Your task to perform on an android device: Go to Google maps Image 0: 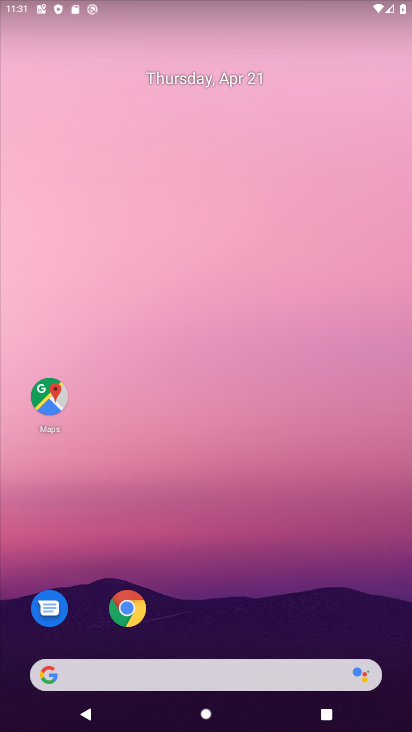
Step 0: drag from (133, 332) to (38, 2)
Your task to perform on an android device: Go to Google maps Image 1: 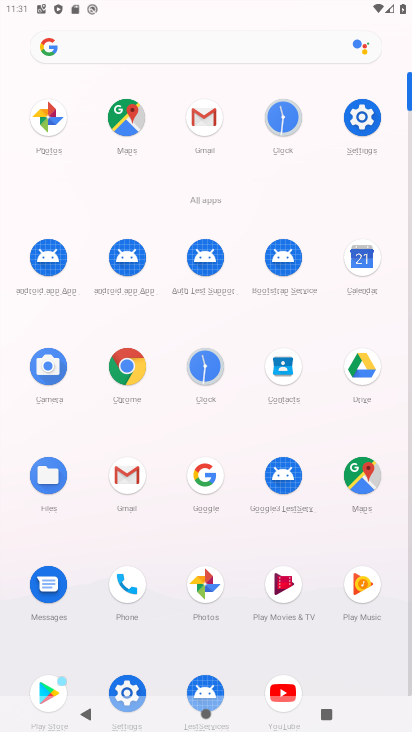
Step 1: click (133, 124)
Your task to perform on an android device: Go to Google maps Image 2: 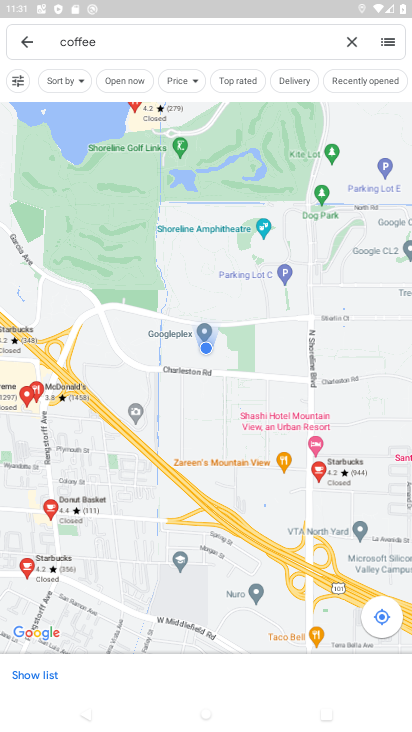
Step 2: click (17, 42)
Your task to perform on an android device: Go to Google maps Image 3: 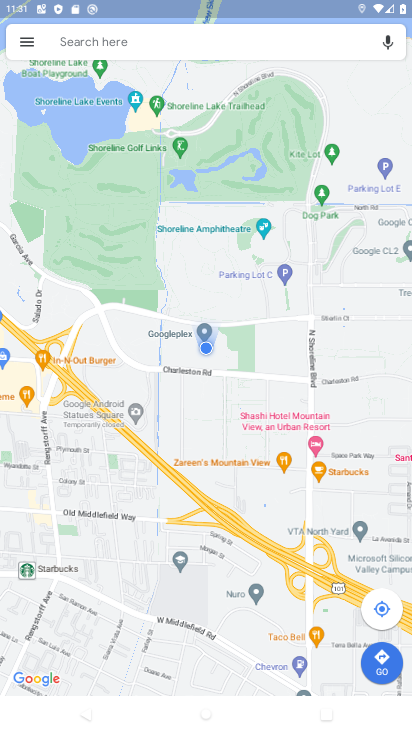
Step 3: click (42, 38)
Your task to perform on an android device: Go to Google maps Image 4: 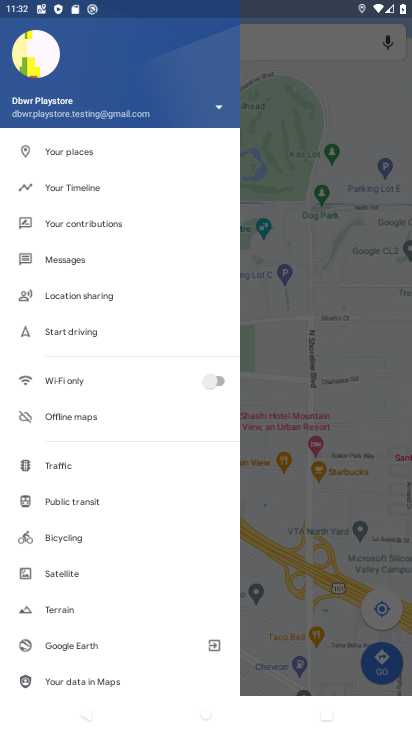
Step 4: task complete